Your task to perform on an android device: toggle wifi Image 0: 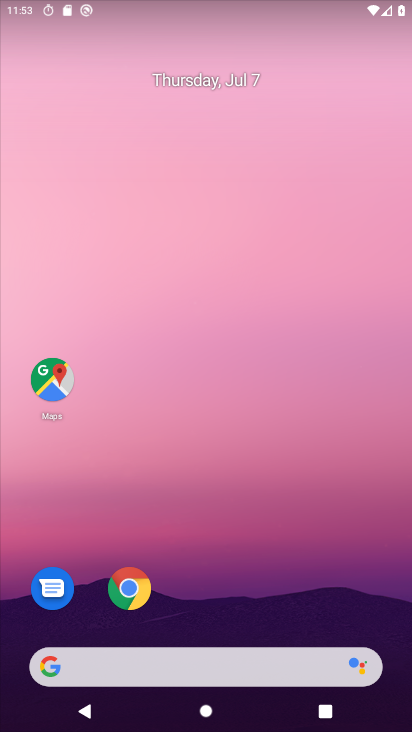
Step 0: drag from (156, 668) to (185, 169)
Your task to perform on an android device: toggle wifi Image 1: 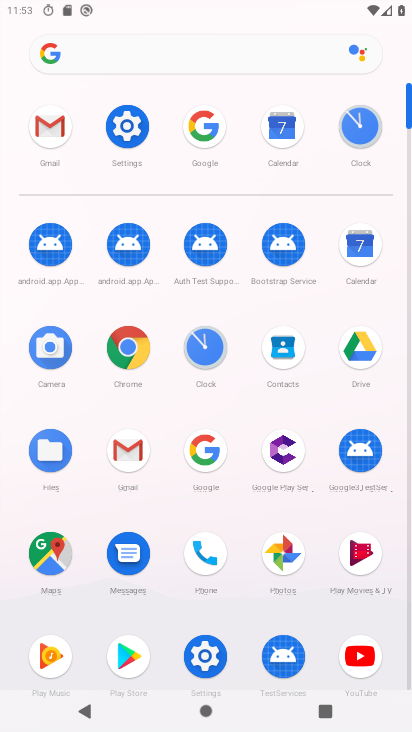
Step 1: click (117, 131)
Your task to perform on an android device: toggle wifi Image 2: 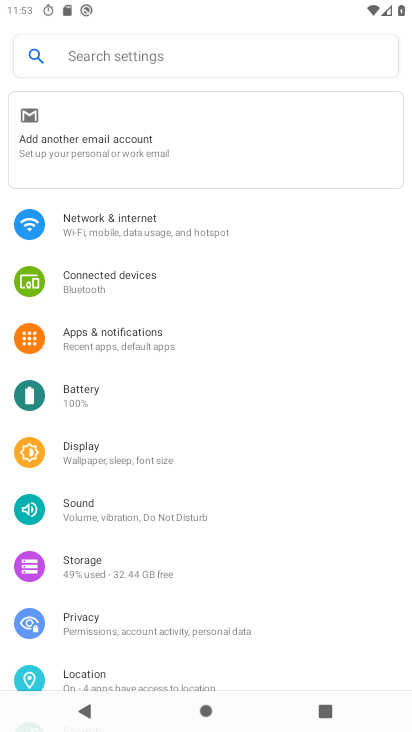
Step 2: click (122, 223)
Your task to perform on an android device: toggle wifi Image 3: 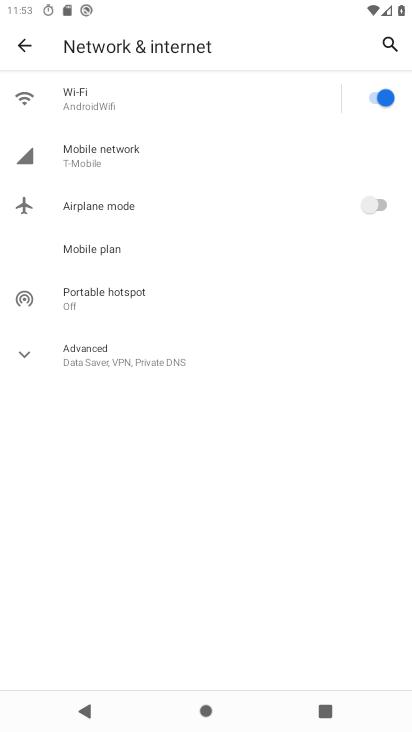
Step 3: click (371, 95)
Your task to perform on an android device: toggle wifi Image 4: 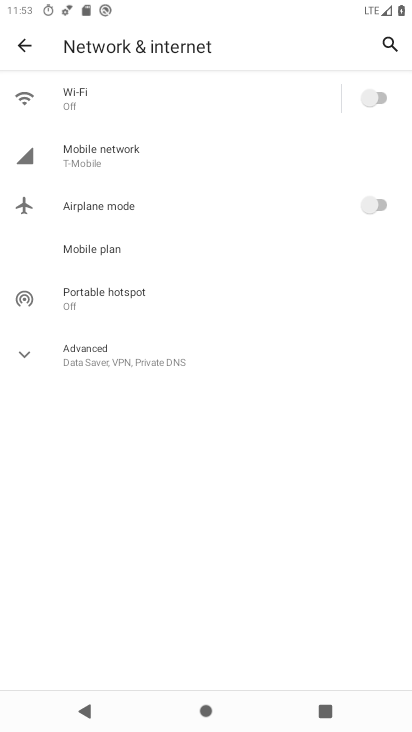
Step 4: task complete